Your task to perform on an android device: find photos in the google photos app Image 0: 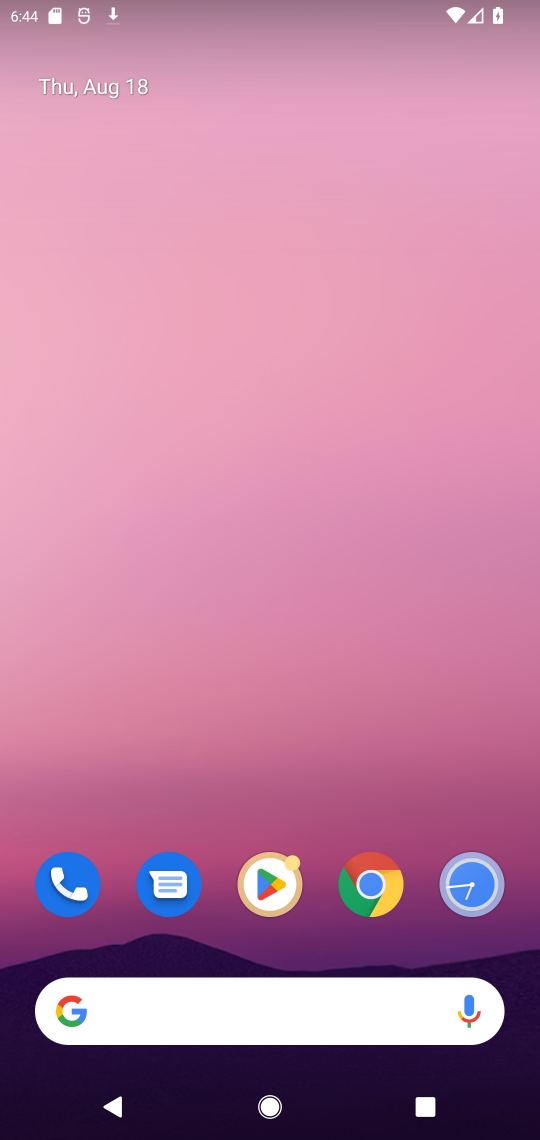
Step 0: drag from (252, 943) to (341, 267)
Your task to perform on an android device: find photos in the google photos app Image 1: 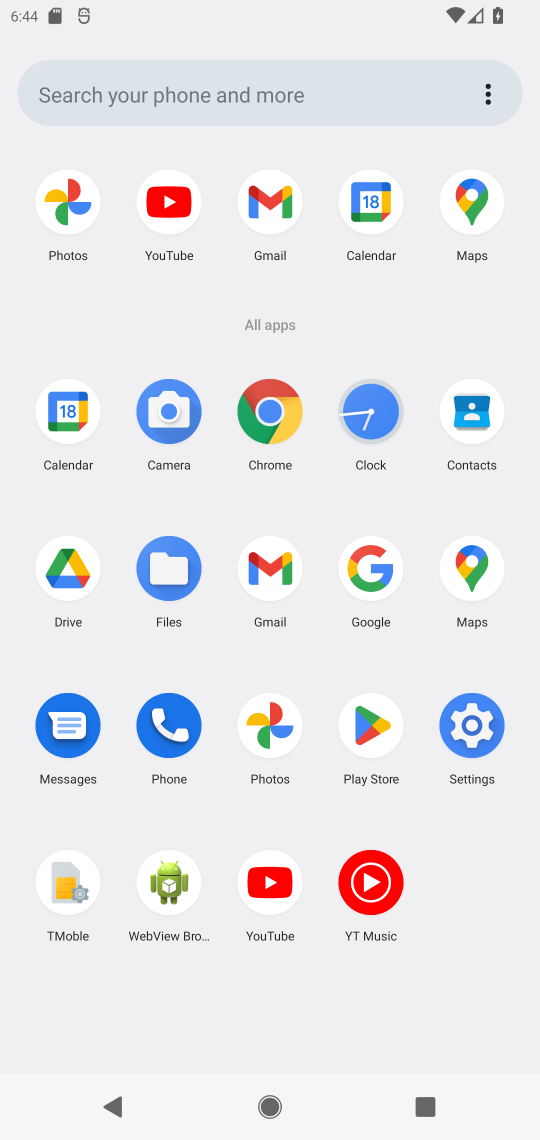
Step 1: click (47, 202)
Your task to perform on an android device: find photos in the google photos app Image 2: 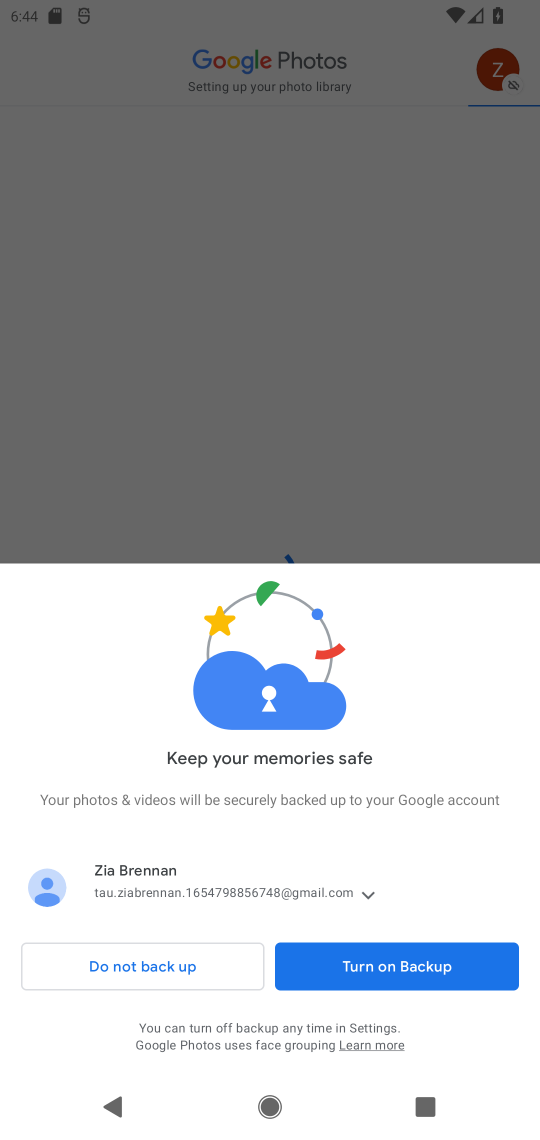
Step 2: click (370, 957)
Your task to perform on an android device: find photos in the google photos app Image 3: 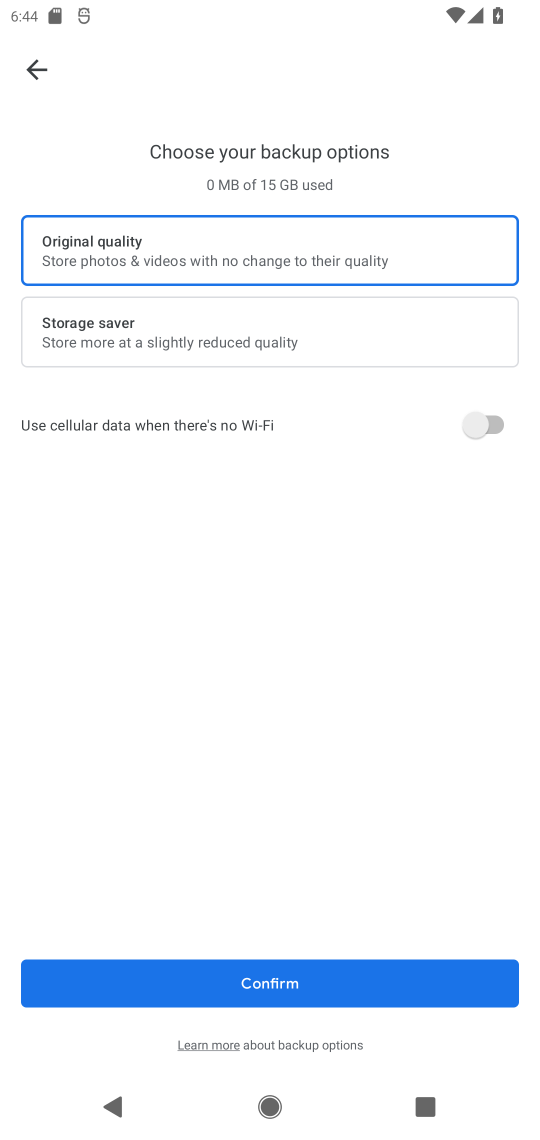
Step 3: click (388, 977)
Your task to perform on an android device: find photos in the google photos app Image 4: 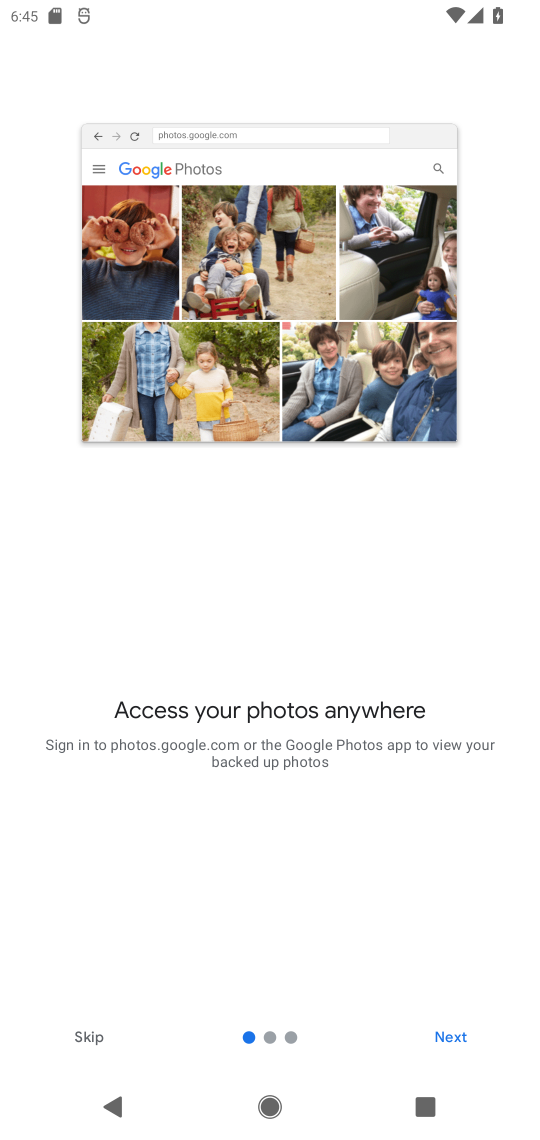
Step 4: click (468, 1034)
Your task to perform on an android device: find photos in the google photos app Image 5: 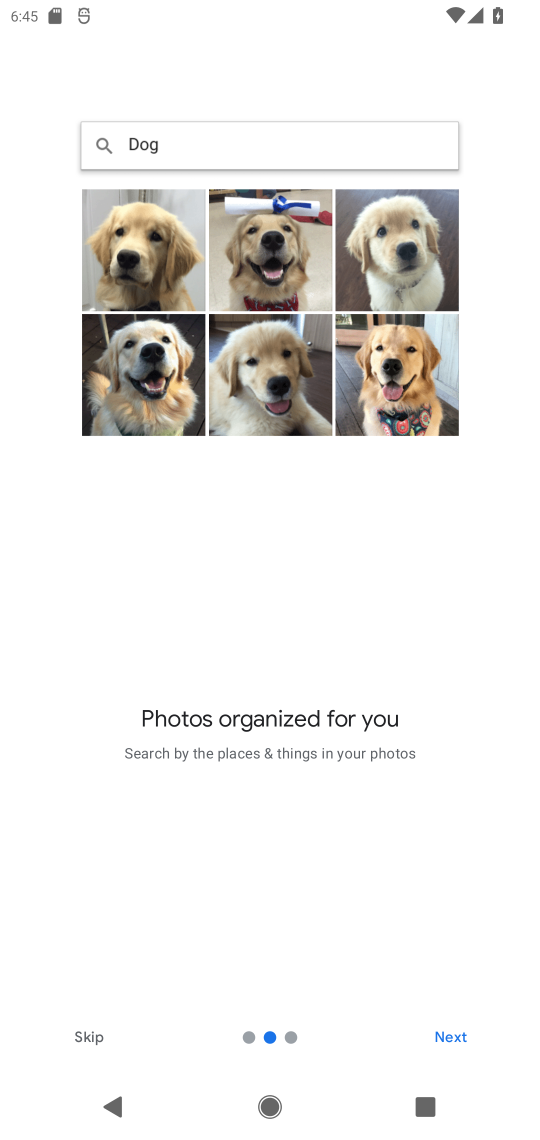
Step 5: click (468, 1034)
Your task to perform on an android device: find photos in the google photos app Image 6: 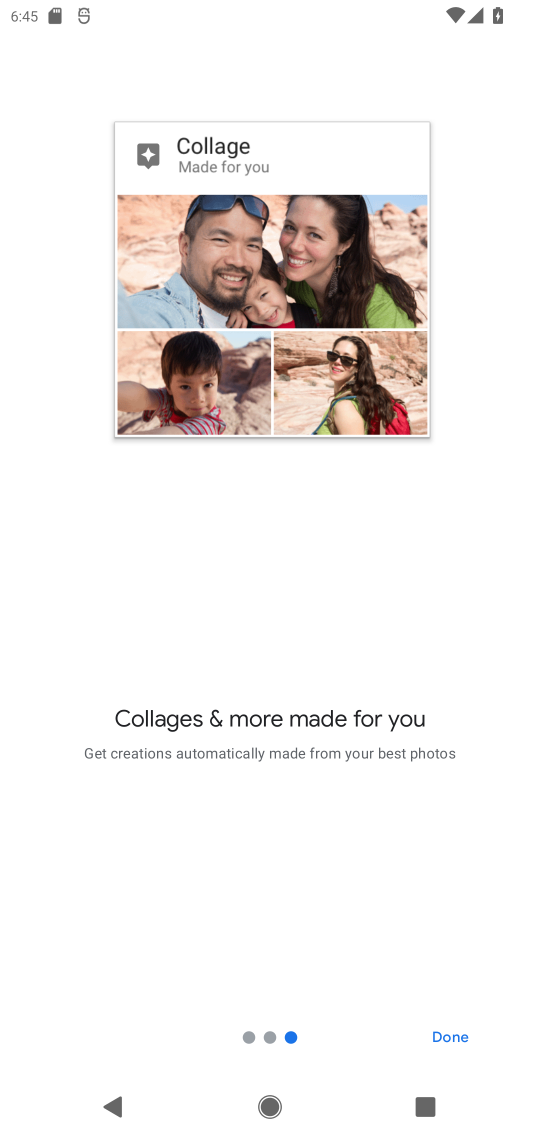
Step 6: click (451, 1036)
Your task to perform on an android device: find photos in the google photos app Image 7: 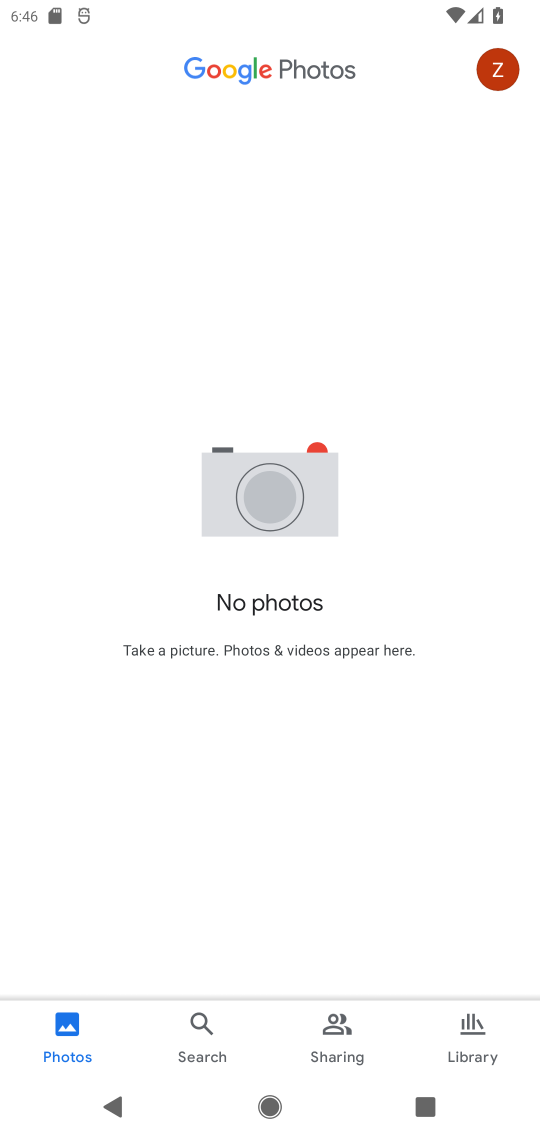
Step 7: task complete